Your task to perform on an android device: turn on notifications settings in the gmail app Image 0: 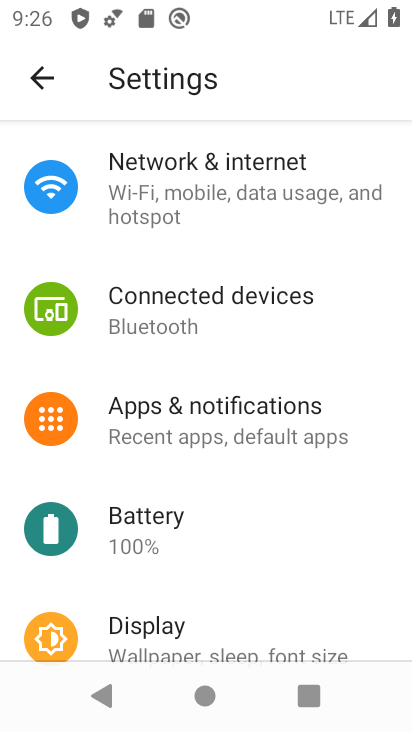
Step 0: drag from (249, 579) to (285, 209)
Your task to perform on an android device: turn on notifications settings in the gmail app Image 1: 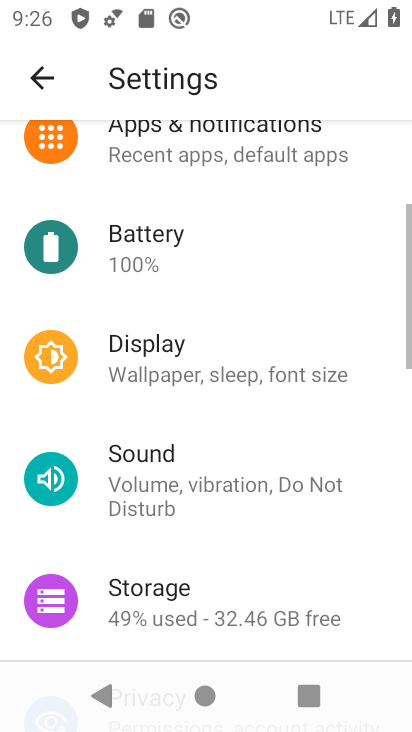
Step 1: press home button
Your task to perform on an android device: turn on notifications settings in the gmail app Image 2: 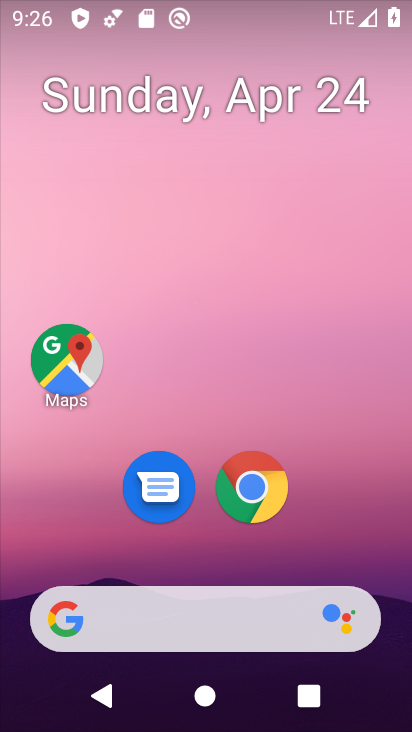
Step 2: drag from (358, 530) to (370, 112)
Your task to perform on an android device: turn on notifications settings in the gmail app Image 3: 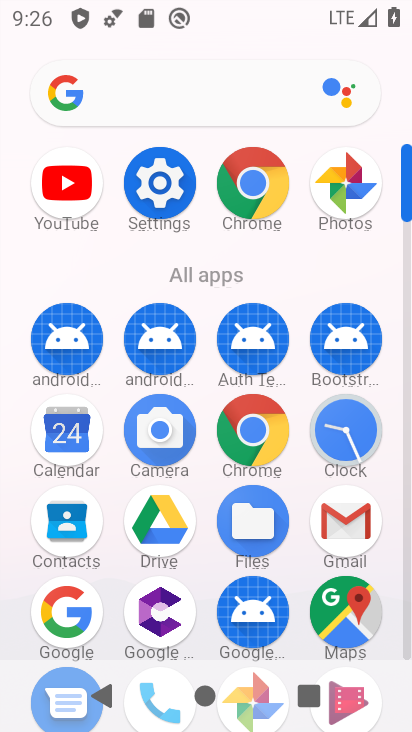
Step 3: click (345, 507)
Your task to perform on an android device: turn on notifications settings in the gmail app Image 4: 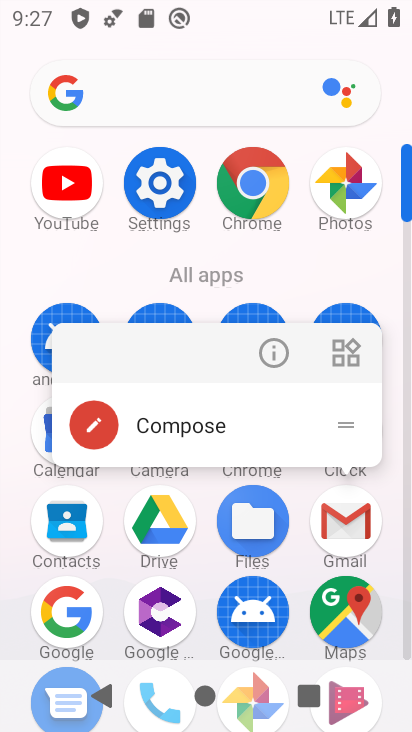
Step 4: click (274, 348)
Your task to perform on an android device: turn on notifications settings in the gmail app Image 5: 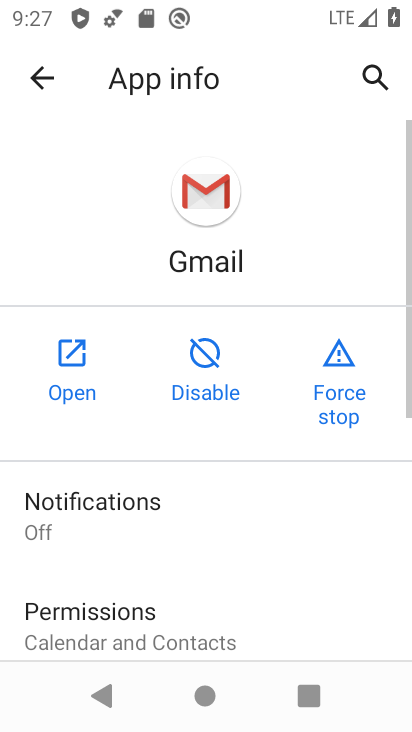
Step 5: drag from (296, 564) to (322, 194)
Your task to perform on an android device: turn on notifications settings in the gmail app Image 6: 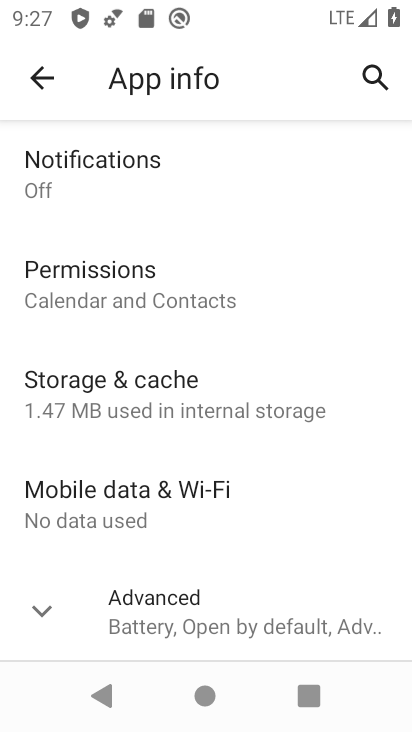
Step 6: click (118, 157)
Your task to perform on an android device: turn on notifications settings in the gmail app Image 7: 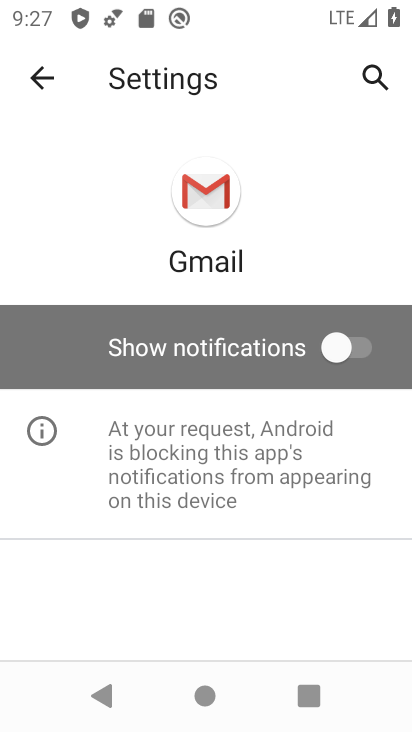
Step 7: click (363, 341)
Your task to perform on an android device: turn on notifications settings in the gmail app Image 8: 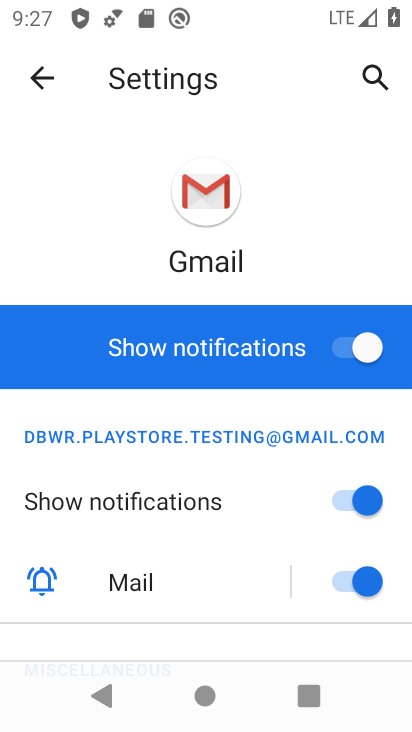
Step 8: task complete